Your task to perform on an android device: refresh tabs in the chrome app Image 0: 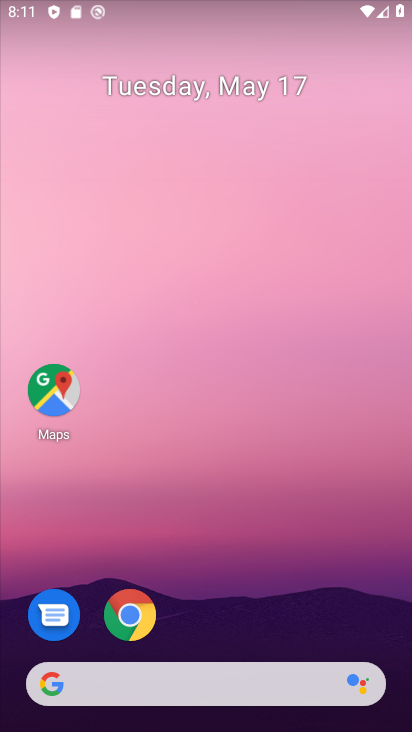
Step 0: click (128, 613)
Your task to perform on an android device: refresh tabs in the chrome app Image 1: 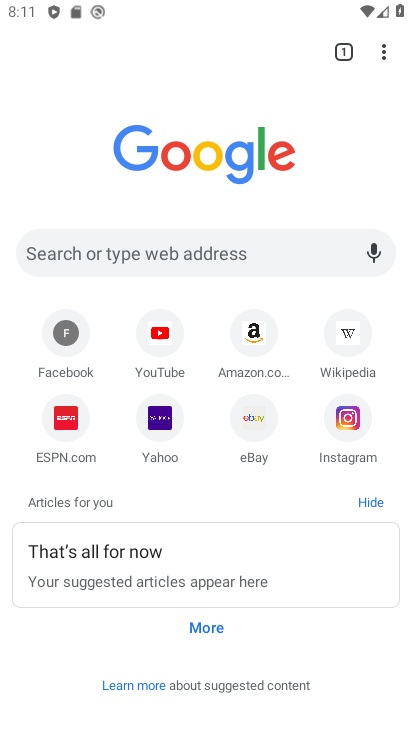
Step 1: click (382, 61)
Your task to perform on an android device: refresh tabs in the chrome app Image 2: 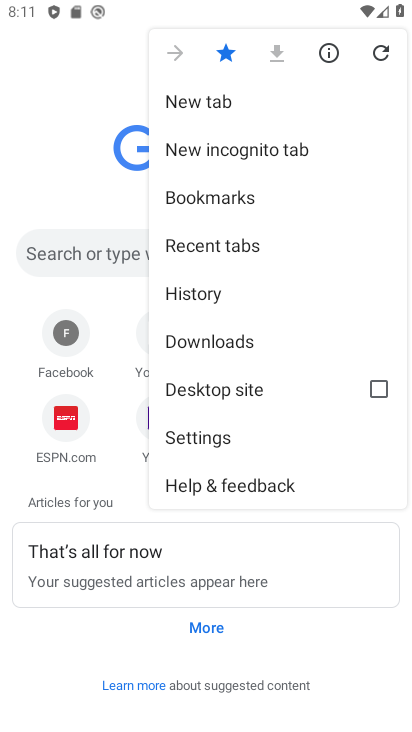
Step 2: click (380, 50)
Your task to perform on an android device: refresh tabs in the chrome app Image 3: 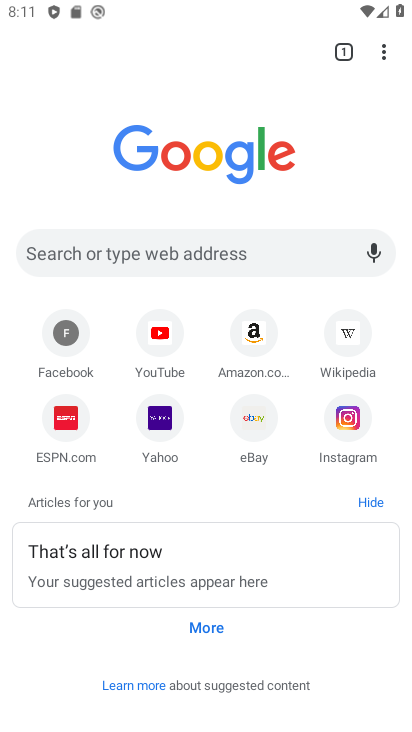
Step 3: task complete